Your task to perform on an android device: change notification settings in the gmail app Image 0: 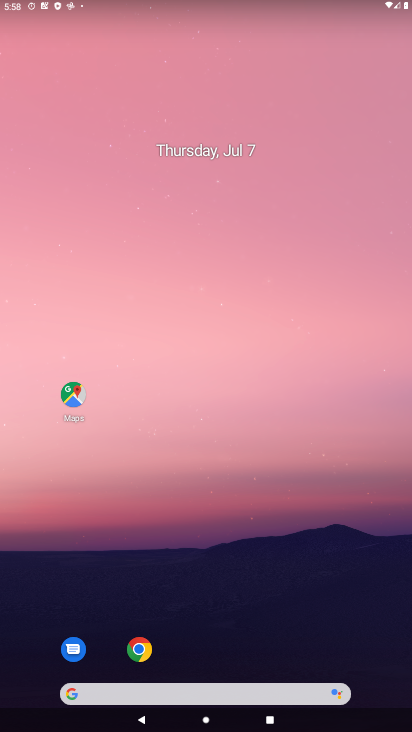
Step 0: drag from (363, 665) to (231, 68)
Your task to perform on an android device: change notification settings in the gmail app Image 1: 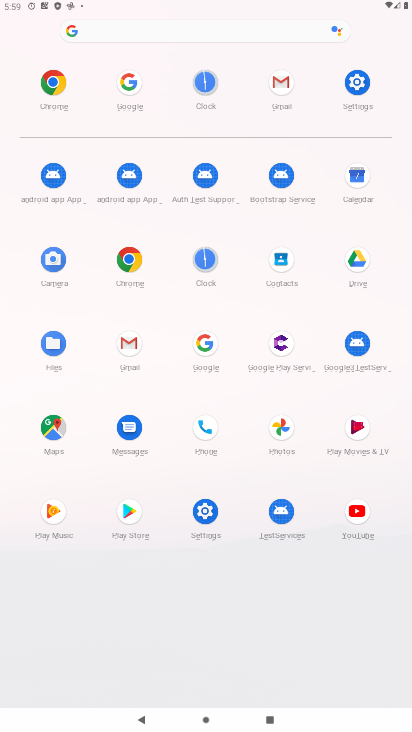
Step 1: click (126, 337)
Your task to perform on an android device: change notification settings in the gmail app Image 2: 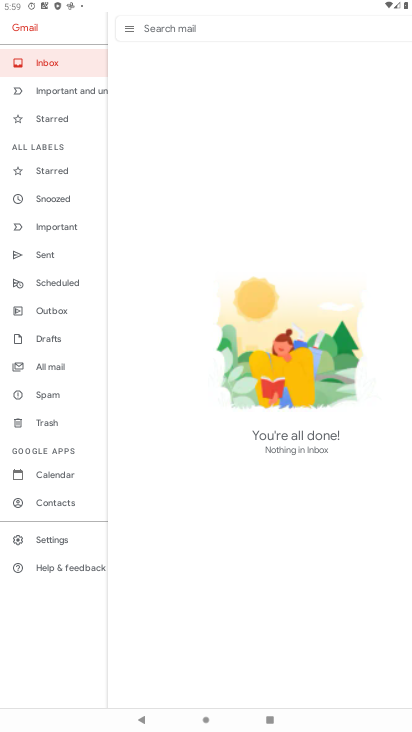
Step 2: click (40, 540)
Your task to perform on an android device: change notification settings in the gmail app Image 3: 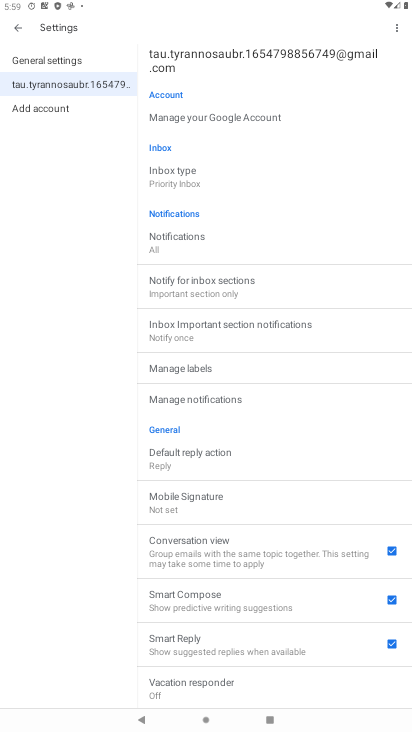
Step 3: click (226, 247)
Your task to perform on an android device: change notification settings in the gmail app Image 4: 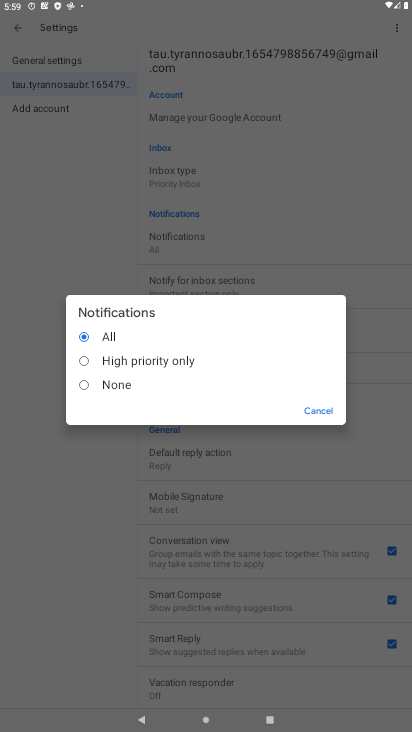
Step 4: click (87, 389)
Your task to perform on an android device: change notification settings in the gmail app Image 5: 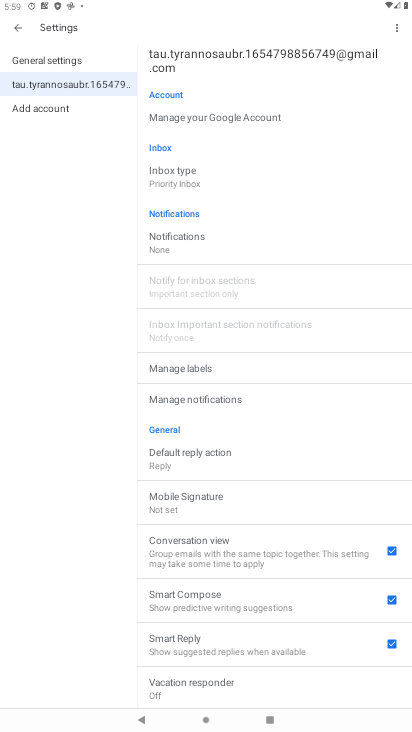
Step 5: task complete